Your task to perform on an android device: Go to battery settings Image 0: 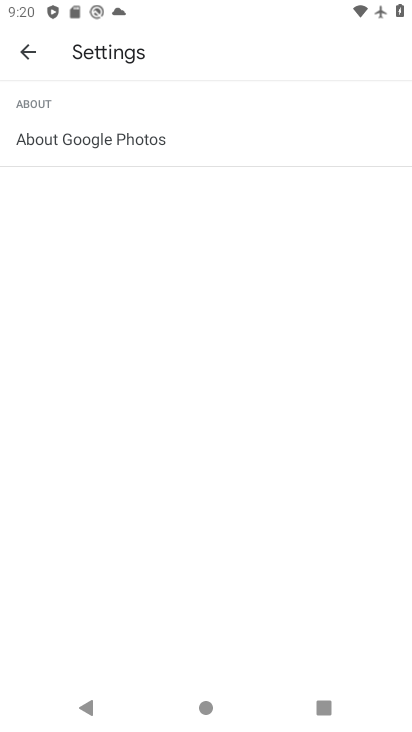
Step 0: press home button
Your task to perform on an android device: Go to battery settings Image 1: 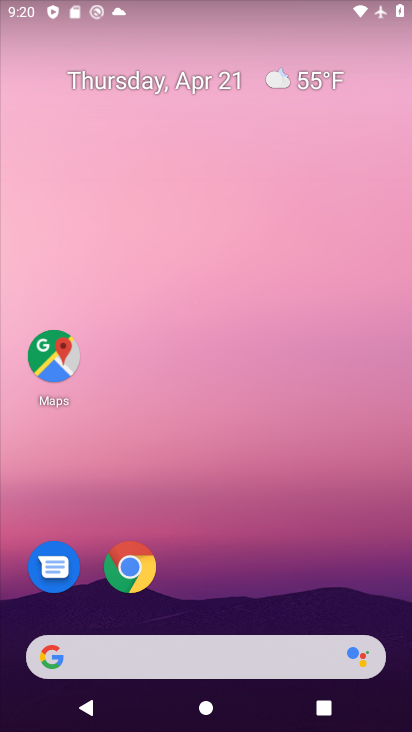
Step 1: drag from (380, 604) to (221, 122)
Your task to perform on an android device: Go to battery settings Image 2: 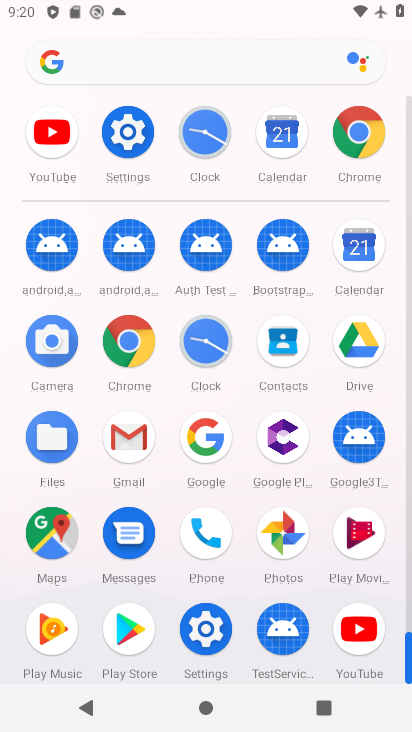
Step 2: click (206, 631)
Your task to perform on an android device: Go to battery settings Image 3: 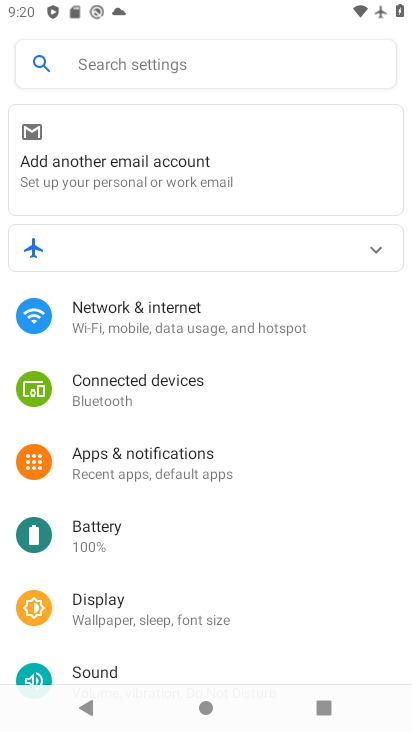
Step 3: click (89, 532)
Your task to perform on an android device: Go to battery settings Image 4: 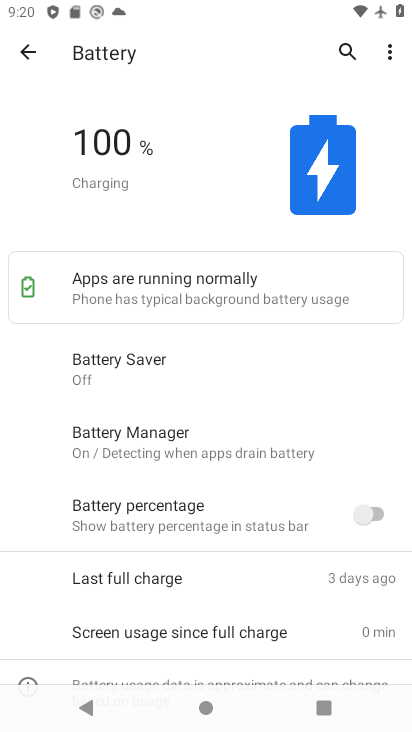
Step 4: drag from (264, 592) to (372, 296)
Your task to perform on an android device: Go to battery settings Image 5: 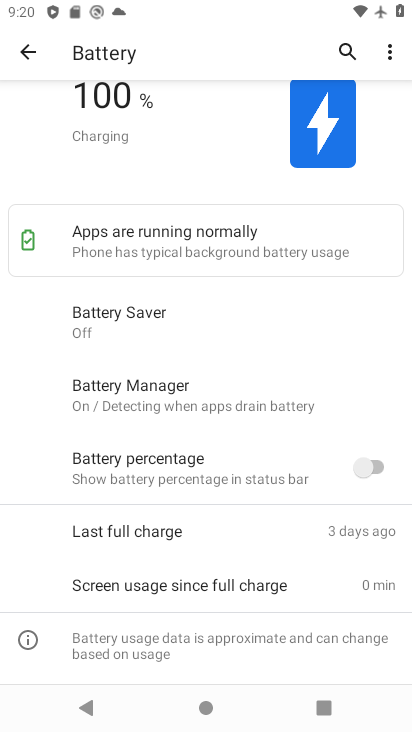
Step 5: click (386, 57)
Your task to perform on an android device: Go to battery settings Image 6: 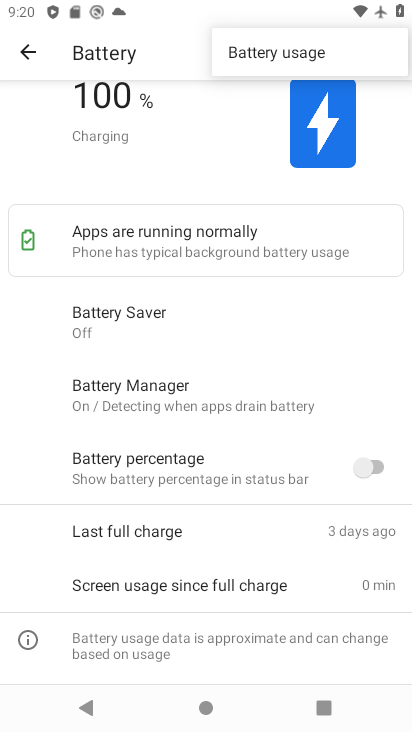
Step 6: click (257, 50)
Your task to perform on an android device: Go to battery settings Image 7: 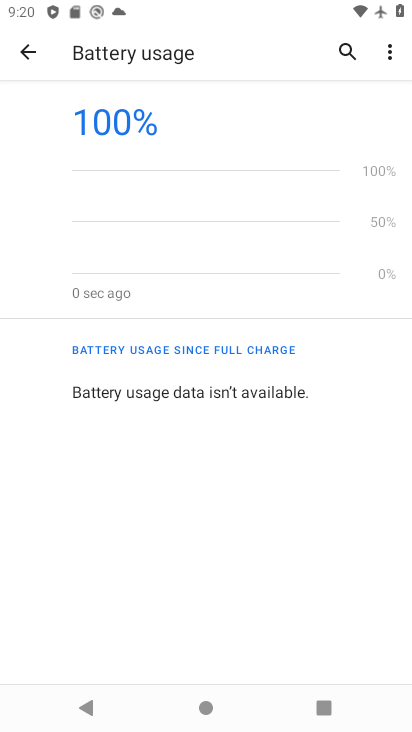
Step 7: task complete